Your task to perform on an android device: see tabs open on other devices in the chrome app Image 0: 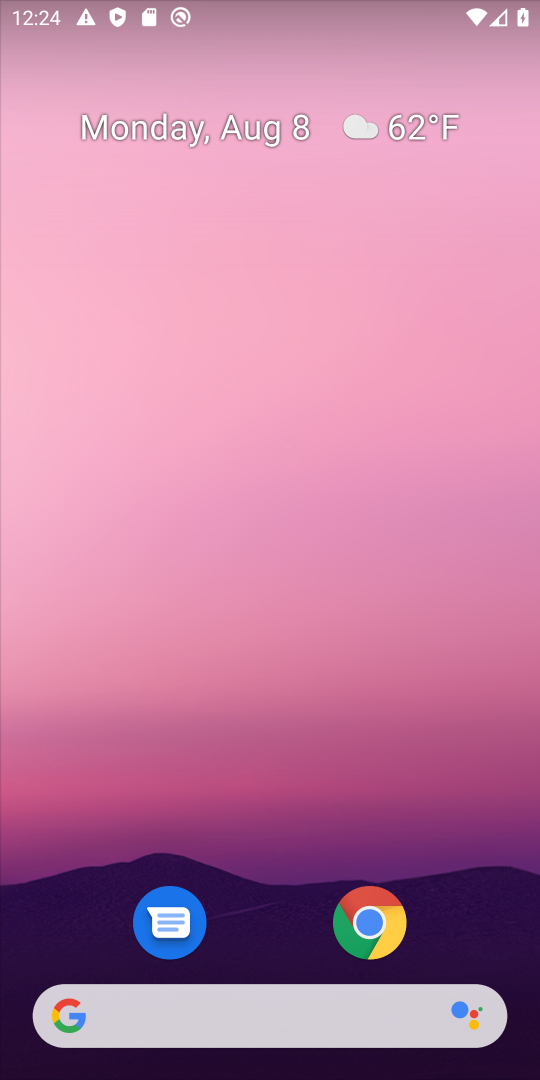
Step 0: click (386, 932)
Your task to perform on an android device: see tabs open on other devices in the chrome app Image 1: 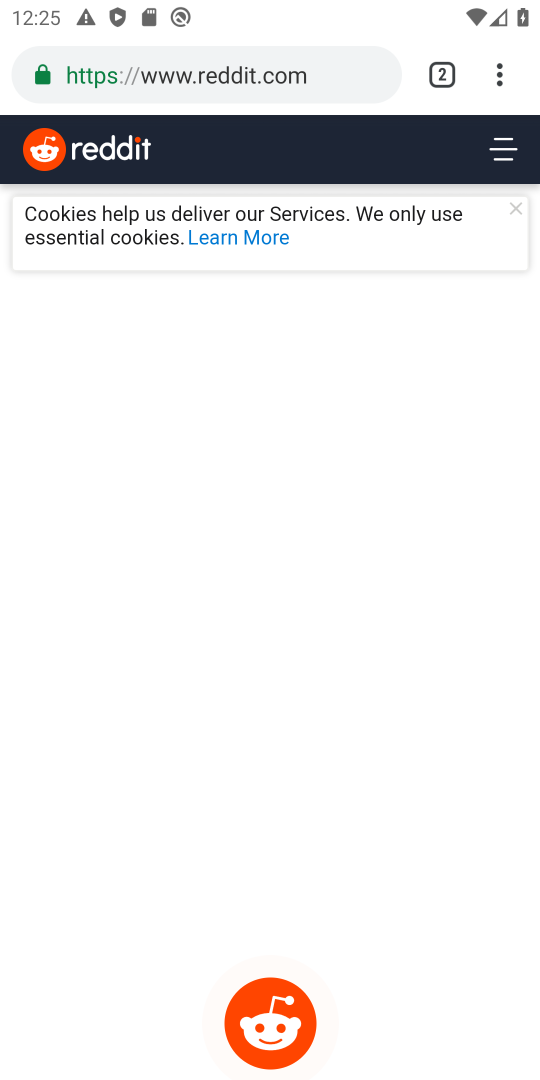
Step 1: click (504, 75)
Your task to perform on an android device: see tabs open on other devices in the chrome app Image 2: 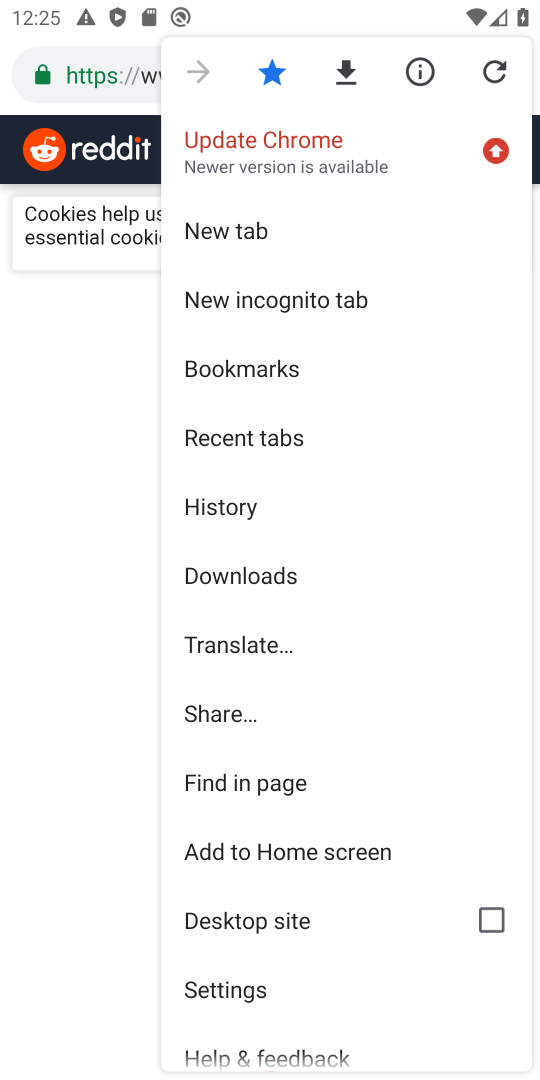
Step 2: click (267, 440)
Your task to perform on an android device: see tabs open on other devices in the chrome app Image 3: 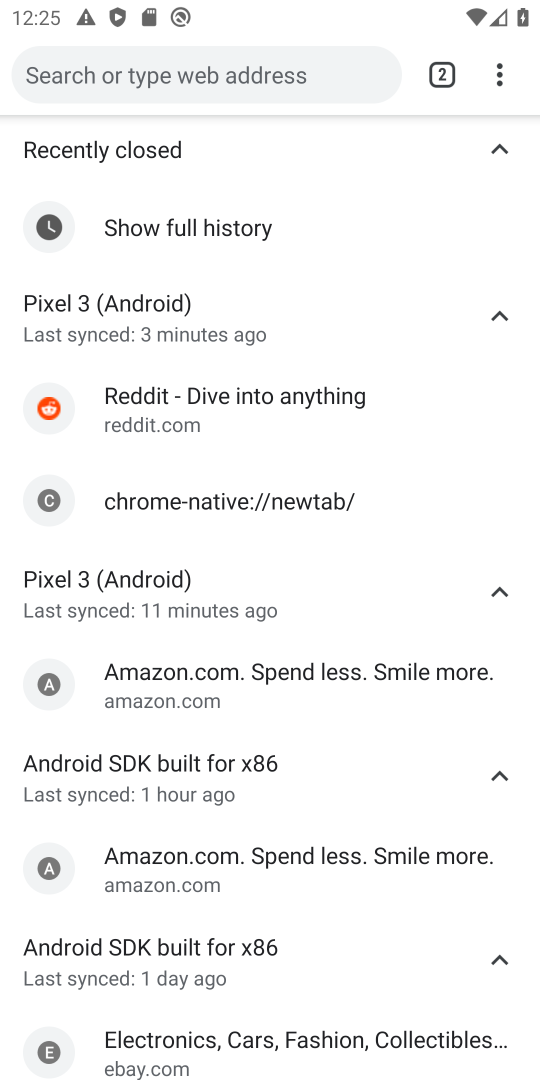
Step 3: task complete